Your task to perform on an android device: Search for sushi restaurants on Maps Image 0: 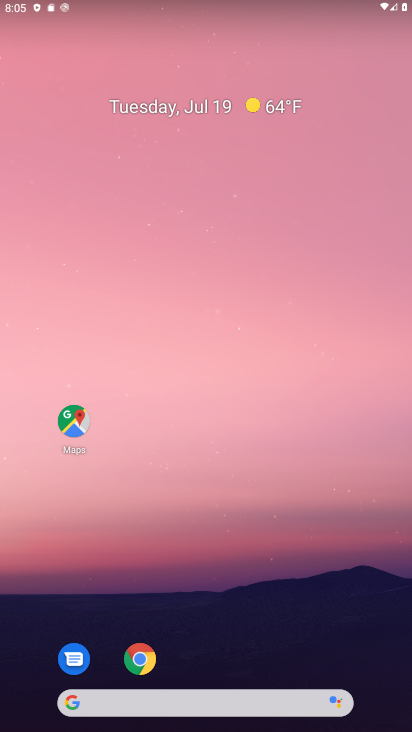
Step 0: click (71, 421)
Your task to perform on an android device: Search for sushi restaurants on Maps Image 1: 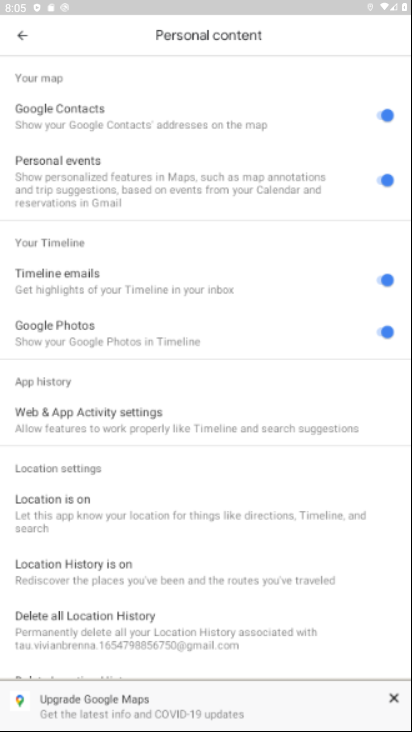
Step 1: click (71, 421)
Your task to perform on an android device: Search for sushi restaurants on Maps Image 2: 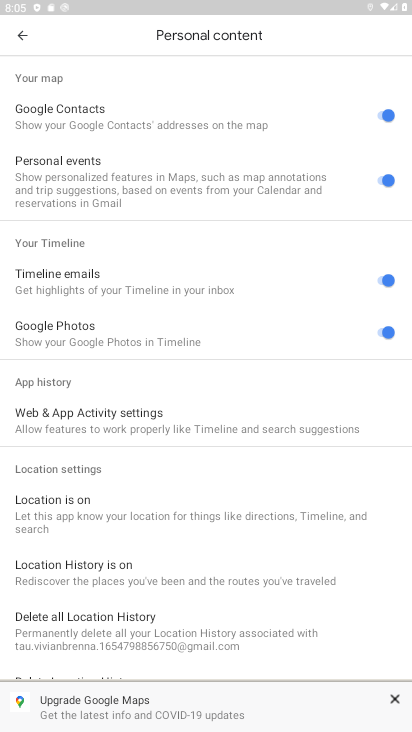
Step 2: click (27, 37)
Your task to perform on an android device: Search for sushi restaurants on Maps Image 3: 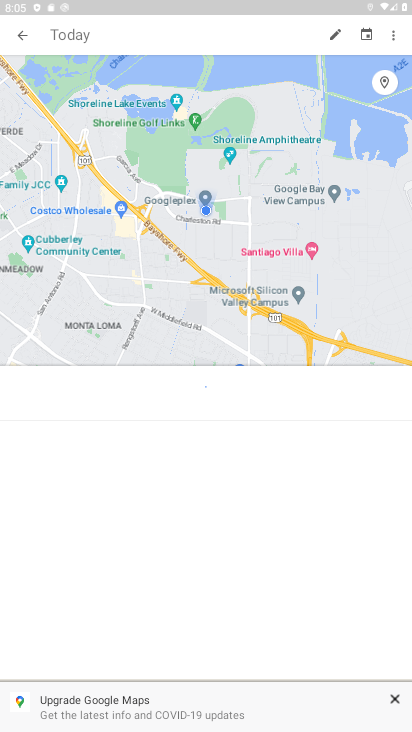
Step 3: click (27, 37)
Your task to perform on an android device: Search for sushi restaurants on Maps Image 4: 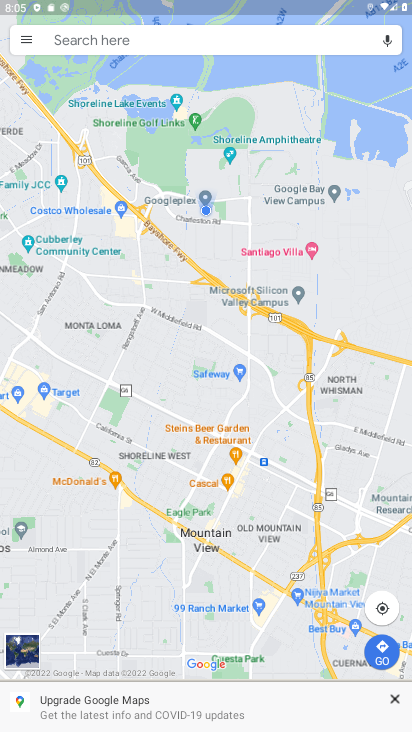
Step 4: click (169, 39)
Your task to perform on an android device: Search for sushi restaurants on Maps Image 5: 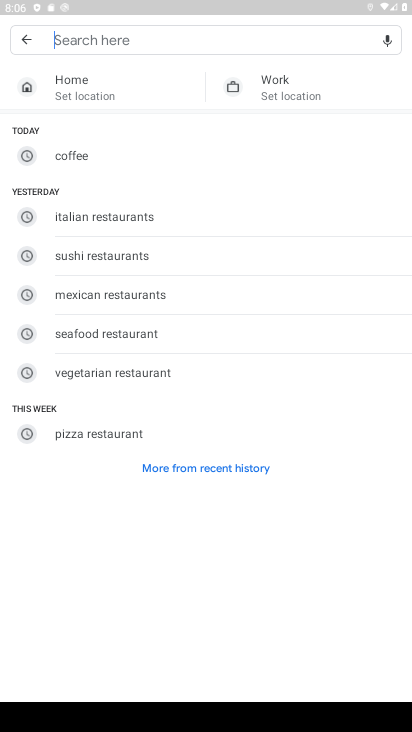
Step 5: type "sushi restaurant"
Your task to perform on an android device: Search for sushi restaurants on Maps Image 6: 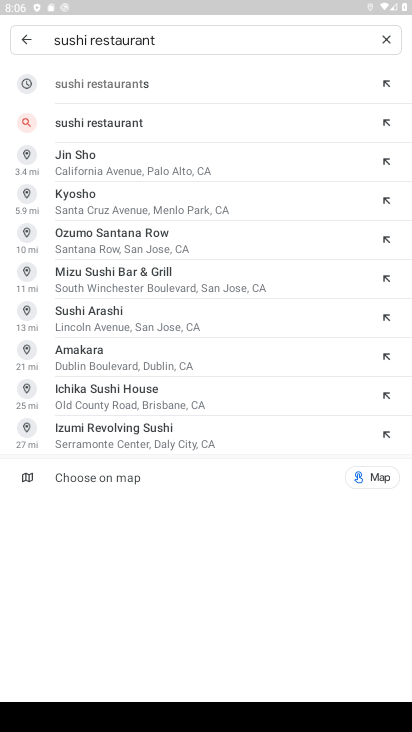
Step 6: click (173, 126)
Your task to perform on an android device: Search for sushi restaurants on Maps Image 7: 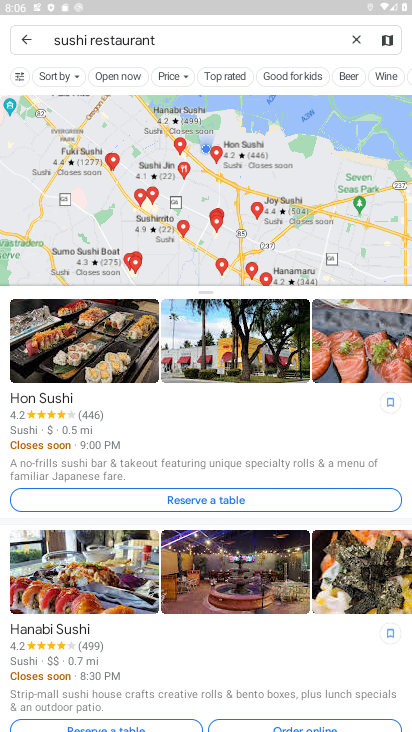
Step 7: task complete